Your task to perform on an android device: Open the calendar app, open the side menu, and click the "Day" option Image 0: 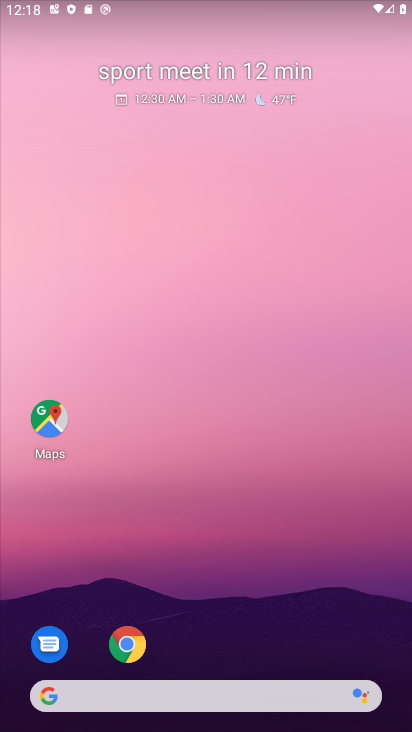
Step 0: drag from (338, 552) to (358, 122)
Your task to perform on an android device: Open the calendar app, open the side menu, and click the "Day" option Image 1: 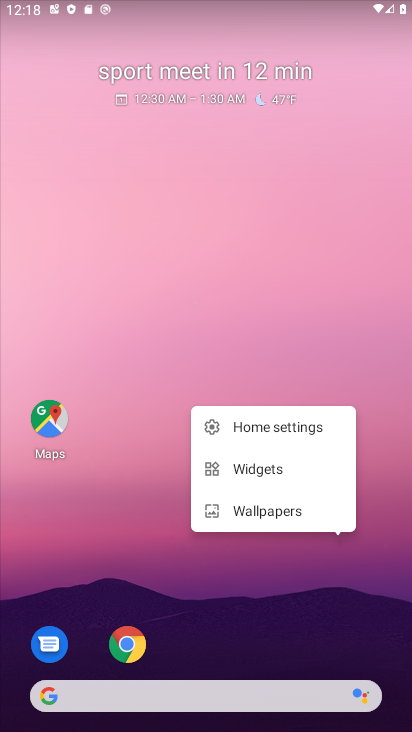
Step 1: click (190, 626)
Your task to perform on an android device: Open the calendar app, open the side menu, and click the "Day" option Image 2: 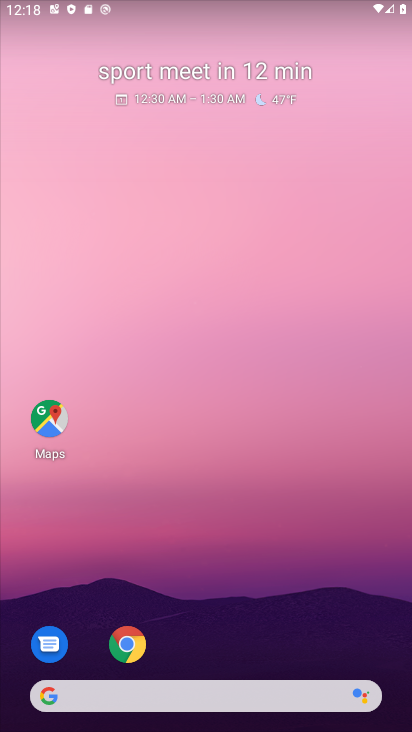
Step 2: drag from (194, 625) to (269, 216)
Your task to perform on an android device: Open the calendar app, open the side menu, and click the "Day" option Image 3: 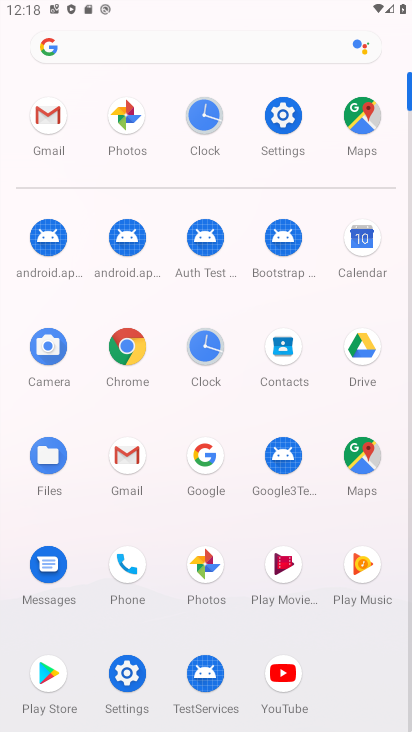
Step 3: click (356, 263)
Your task to perform on an android device: Open the calendar app, open the side menu, and click the "Day" option Image 4: 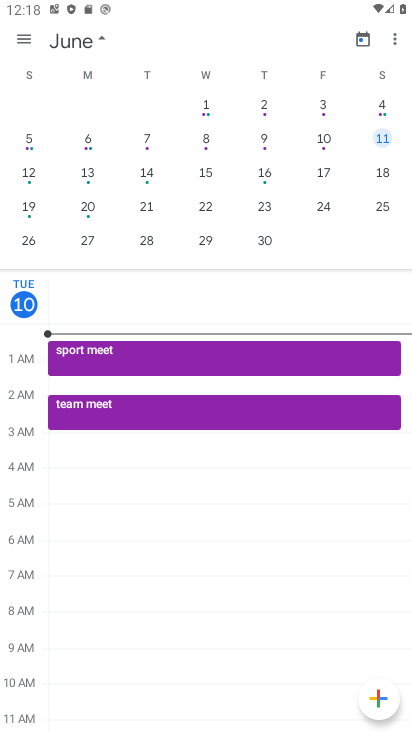
Step 4: click (29, 52)
Your task to perform on an android device: Open the calendar app, open the side menu, and click the "Day" option Image 5: 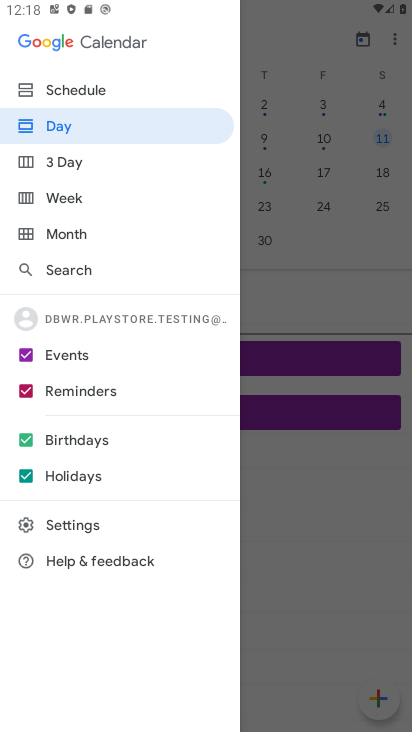
Step 5: click (94, 128)
Your task to perform on an android device: Open the calendar app, open the side menu, and click the "Day" option Image 6: 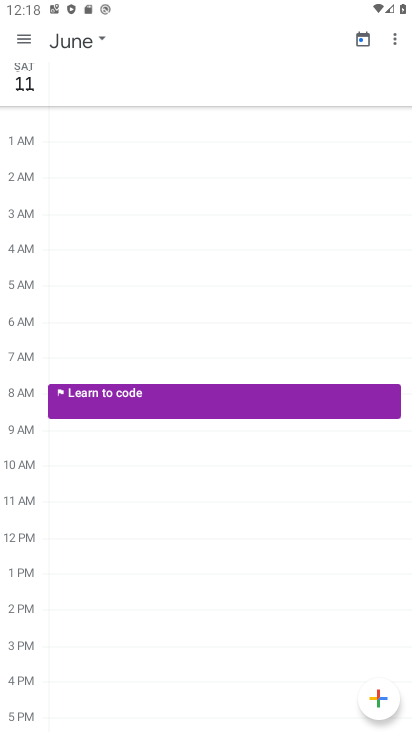
Step 6: task complete